Your task to perform on an android device: turn on showing notifications on the lock screen Image 0: 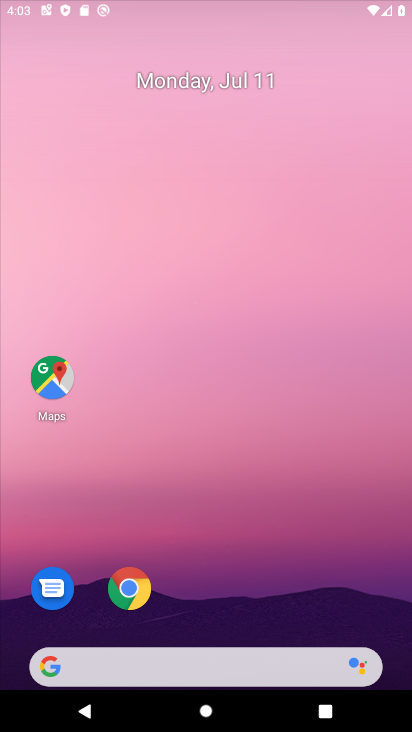
Step 0: drag from (325, 609) to (339, 99)
Your task to perform on an android device: turn on showing notifications on the lock screen Image 1: 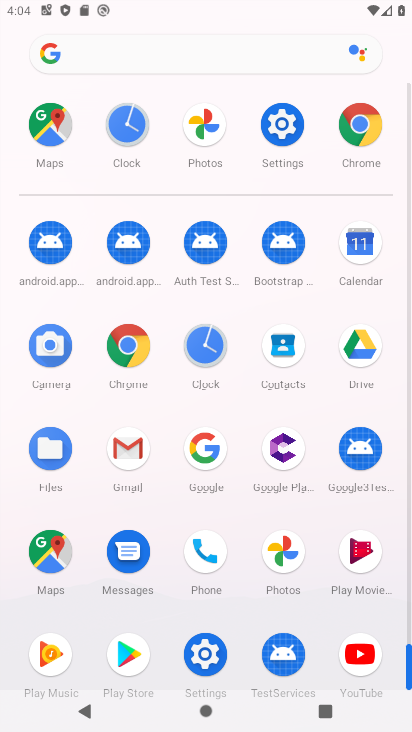
Step 1: click (287, 143)
Your task to perform on an android device: turn on showing notifications on the lock screen Image 2: 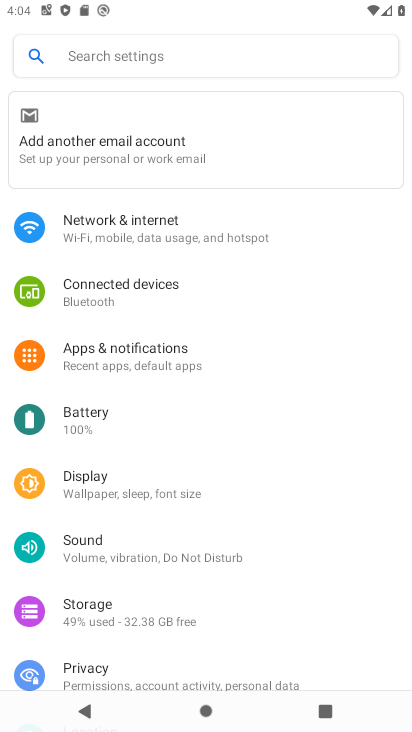
Step 2: drag from (336, 388) to (333, 295)
Your task to perform on an android device: turn on showing notifications on the lock screen Image 3: 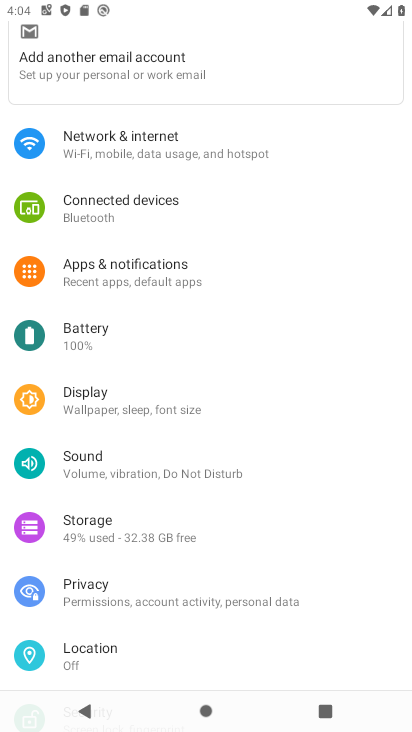
Step 3: drag from (329, 430) to (332, 354)
Your task to perform on an android device: turn on showing notifications on the lock screen Image 4: 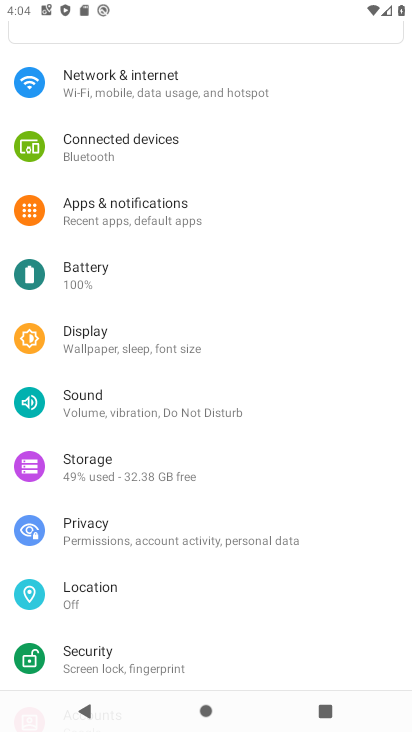
Step 4: drag from (334, 456) to (336, 355)
Your task to perform on an android device: turn on showing notifications on the lock screen Image 5: 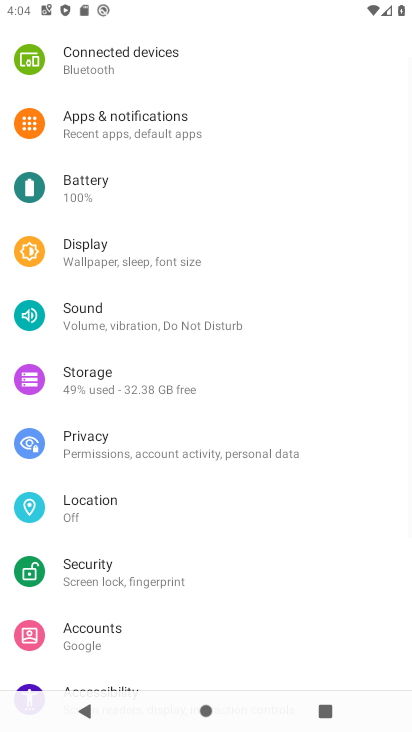
Step 5: drag from (343, 490) to (336, 378)
Your task to perform on an android device: turn on showing notifications on the lock screen Image 6: 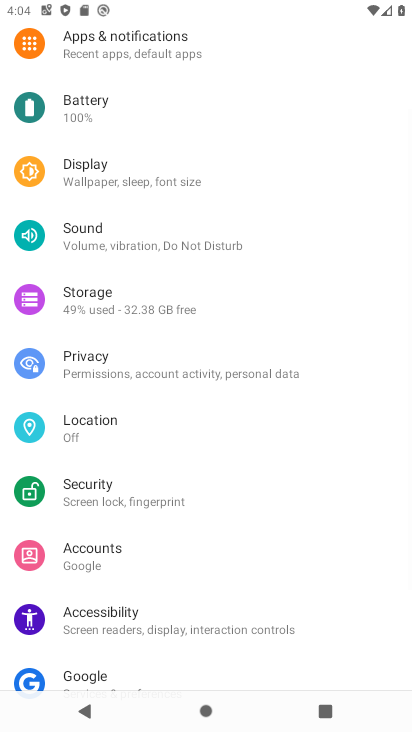
Step 6: drag from (346, 497) to (353, 387)
Your task to perform on an android device: turn on showing notifications on the lock screen Image 7: 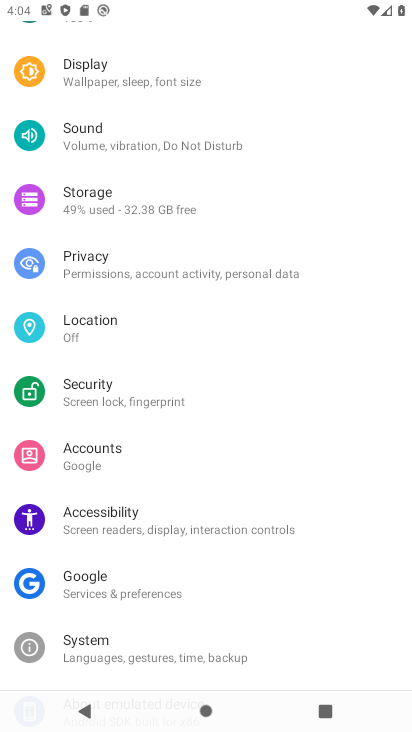
Step 7: drag from (340, 509) to (342, 351)
Your task to perform on an android device: turn on showing notifications on the lock screen Image 8: 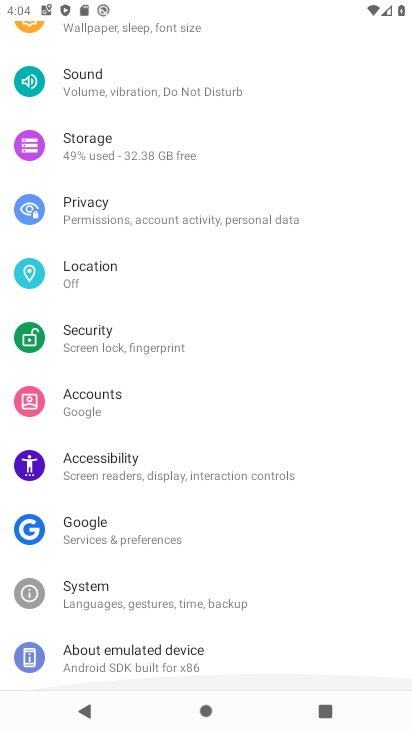
Step 8: drag from (328, 285) to (327, 386)
Your task to perform on an android device: turn on showing notifications on the lock screen Image 9: 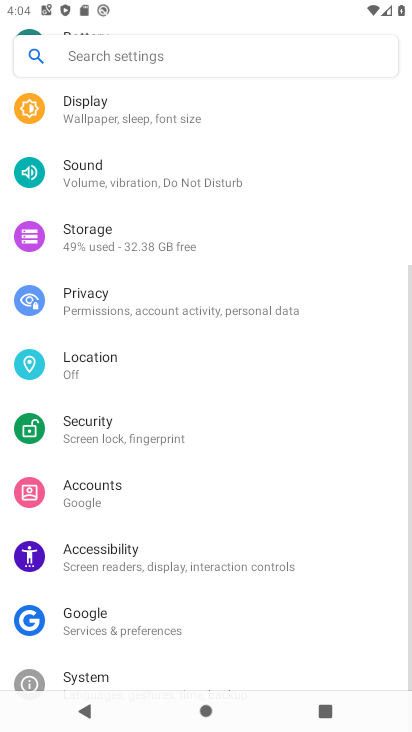
Step 9: drag from (338, 242) to (337, 339)
Your task to perform on an android device: turn on showing notifications on the lock screen Image 10: 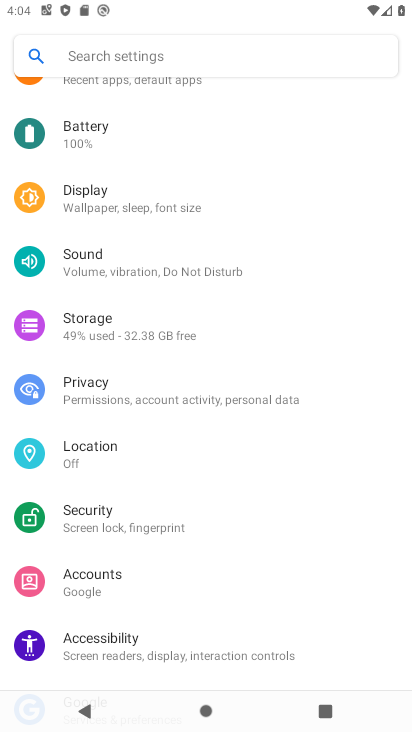
Step 10: drag from (332, 193) to (339, 343)
Your task to perform on an android device: turn on showing notifications on the lock screen Image 11: 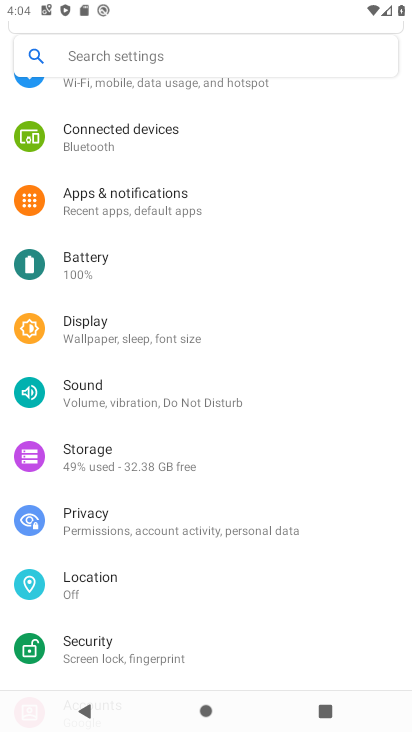
Step 11: drag from (316, 168) to (343, 395)
Your task to perform on an android device: turn on showing notifications on the lock screen Image 12: 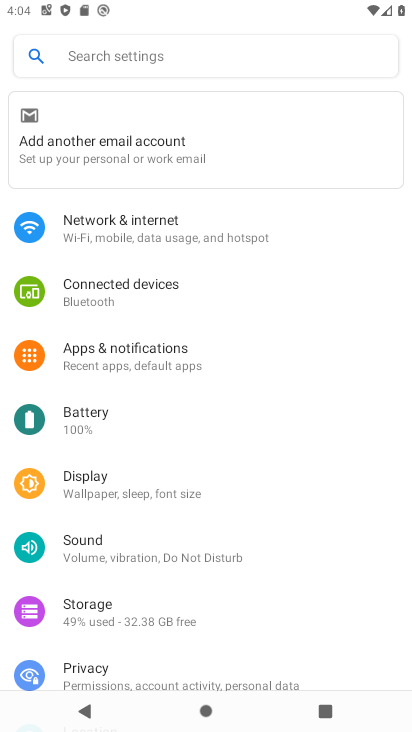
Step 12: click (186, 365)
Your task to perform on an android device: turn on showing notifications on the lock screen Image 13: 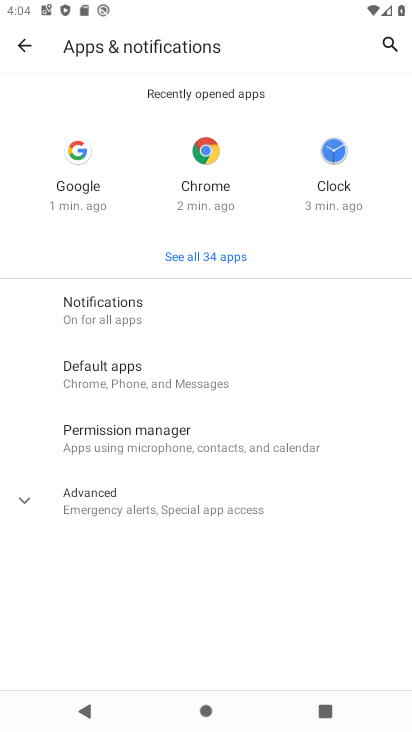
Step 13: click (119, 309)
Your task to perform on an android device: turn on showing notifications on the lock screen Image 14: 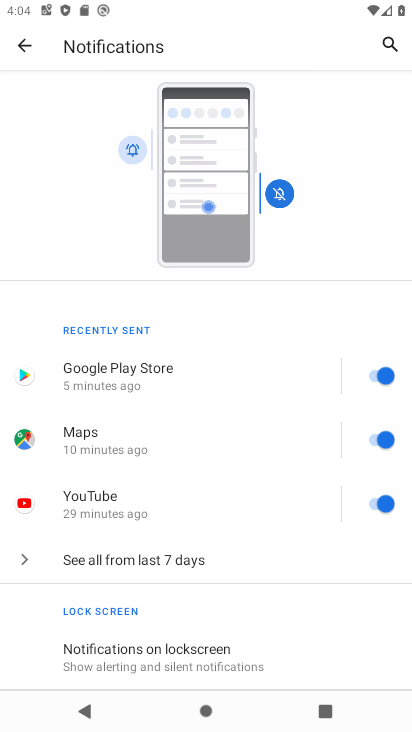
Step 14: drag from (293, 490) to (292, 366)
Your task to perform on an android device: turn on showing notifications on the lock screen Image 15: 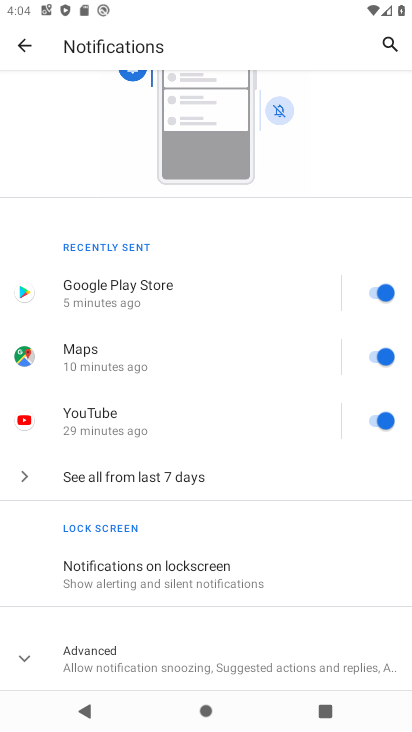
Step 15: drag from (285, 497) to (275, 393)
Your task to perform on an android device: turn on showing notifications on the lock screen Image 16: 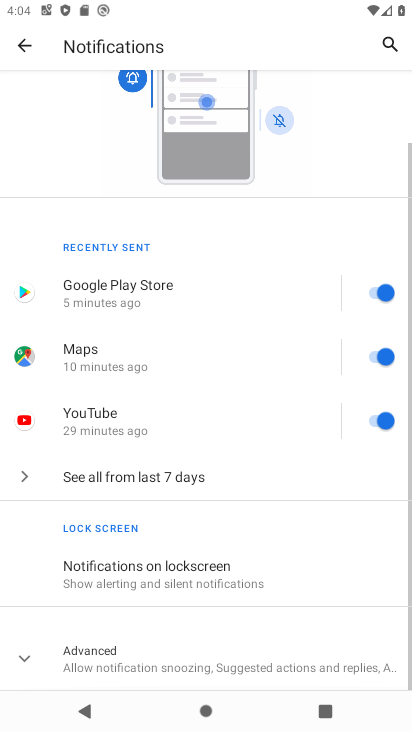
Step 16: click (255, 573)
Your task to perform on an android device: turn on showing notifications on the lock screen Image 17: 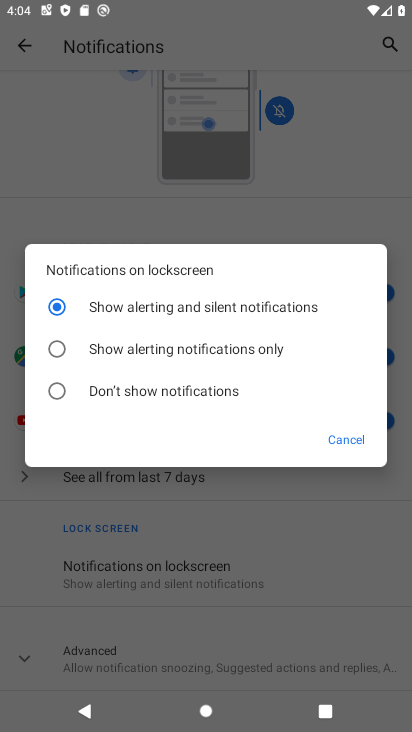
Step 17: task complete